Your task to perform on an android device: Open Google Maps Image 0: 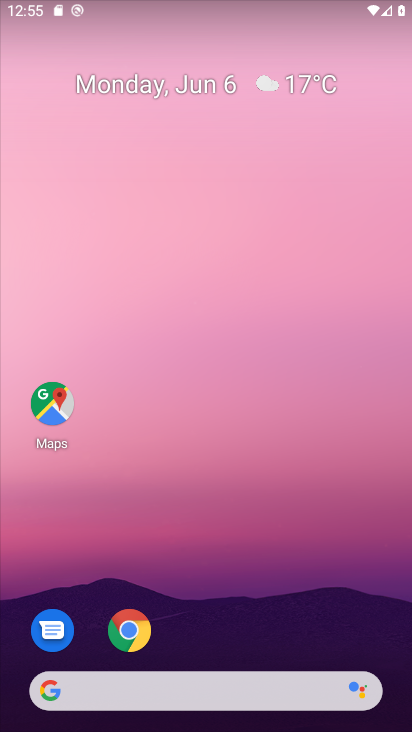
Step 0: click (60, 405)
Your task to perform on an android device: Open Google Maps Image 1: 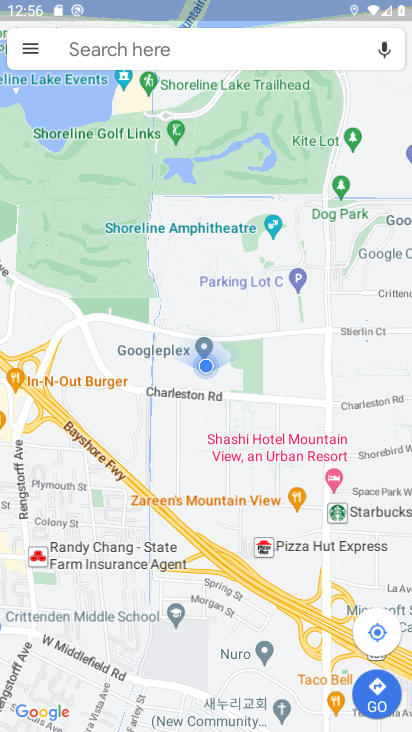
Step 1: task complete